Your task to perform on an android device: Is it going to rain today? Image 0: 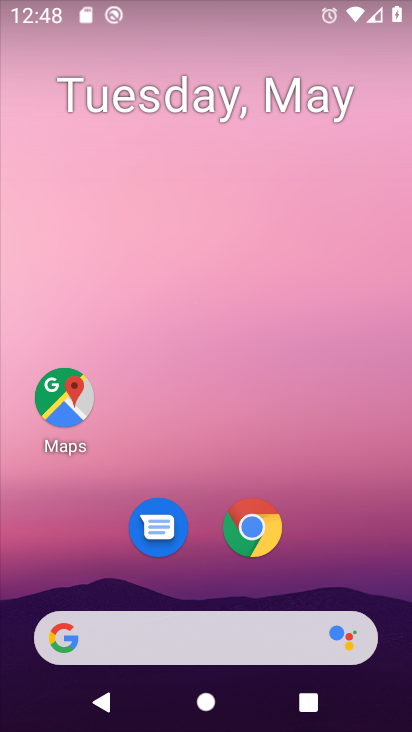
Step 0: click (167, 656)
Your task to perform on an android device: Is it going to rain today? Image 1: 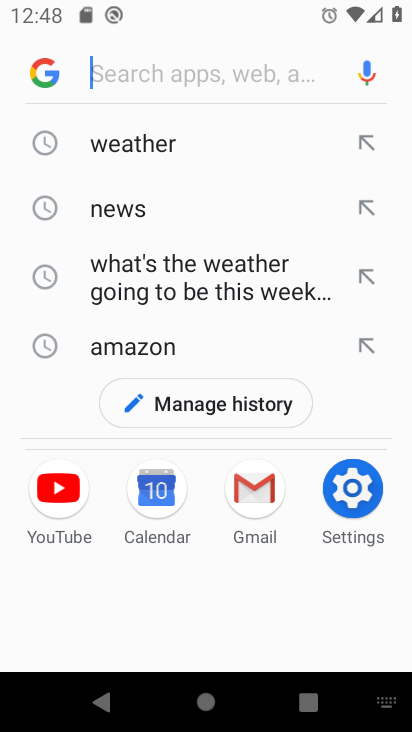
Step 1: type "Is it going to rain today?"
Your task to perform on an android device: Is it going to rain today? Image 2: 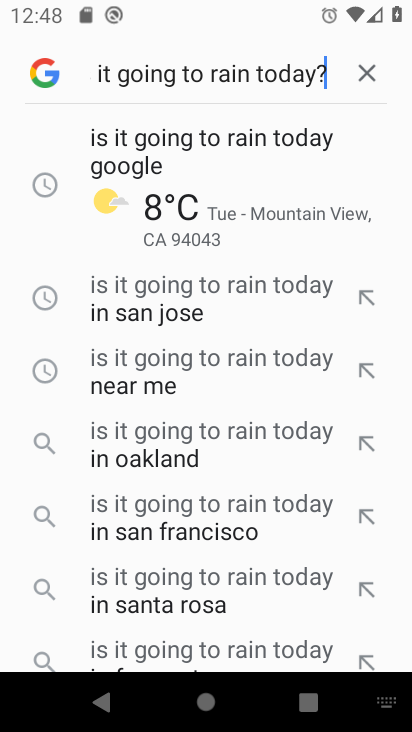
Step 2: click (298, 151)
Your task to perform on an android device: Is it going to rain today? Image 3: 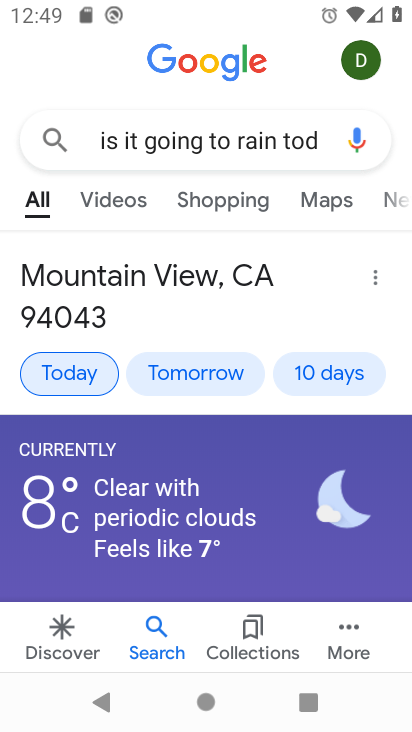
Step 3: task complete